Your task to perform on an android device: find which apps use the phone's location Image 0: 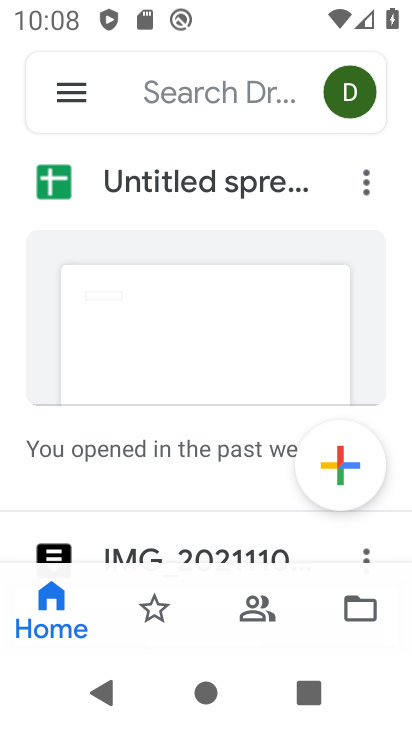
Step 0: press home button
Your task to perform on an android device: find which apps use the phone's location Image 1: 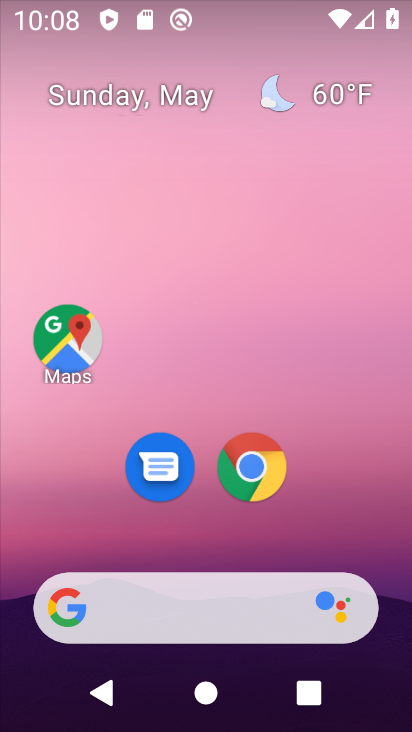
Step 1: drag from (369, 550) to (376, 115)
Your task to perform on an android device: find which apps use the phone's location Image 2: 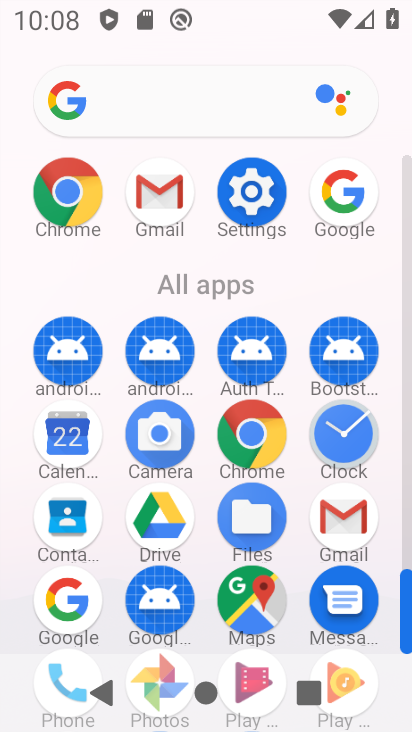
Step 2: click (272, 185)
Your task to perform on an android device: find which apps use the phone's location Image 3: 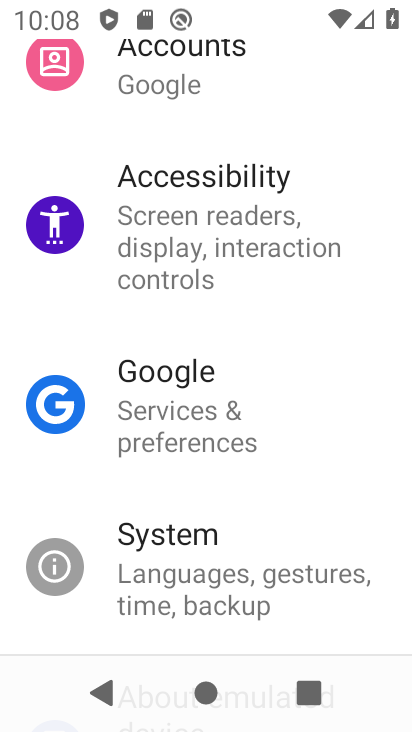
Step 3: drag from (275, 192) to (229, 550)
Your task to perform on an android device: find which apps use the phone's location Image 4: 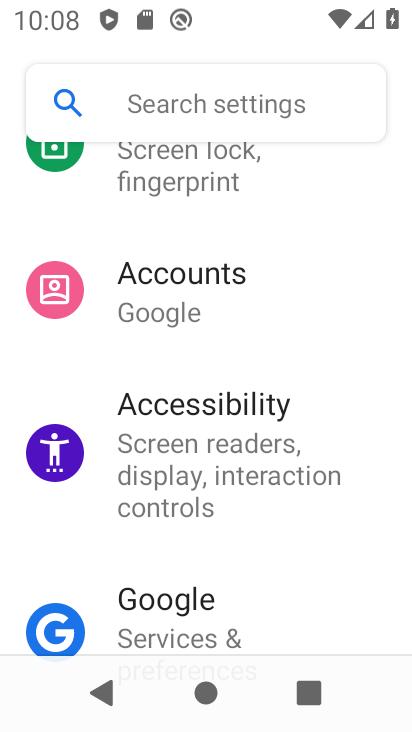
Step 4: drag from (225, 290) to (197, 646)
Your task to perform on an android device: find which apps use the phone's location Image 5: 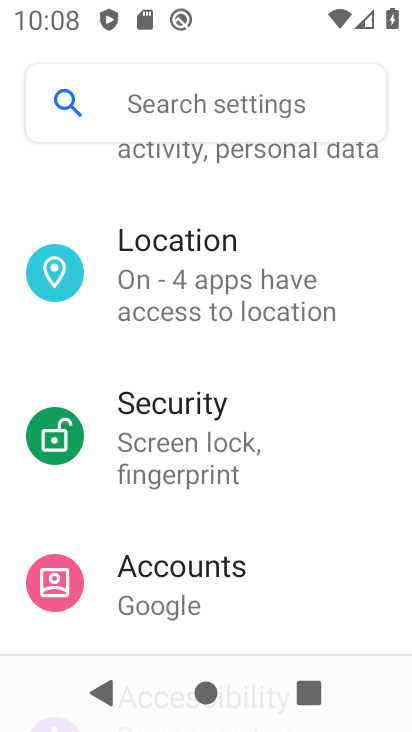
Step 5: click (212, 297)
Your task to perform on an android device: find which apps use the phone's location Image 6: 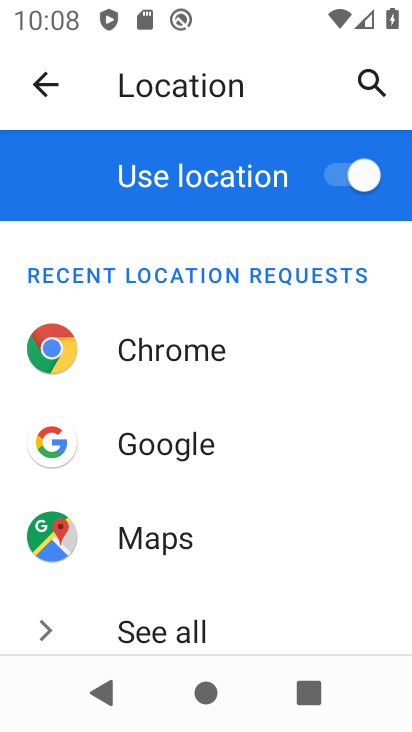
Step 6: task complete